Your task to perform on an android device: turn on bluetooth scan Image 0: 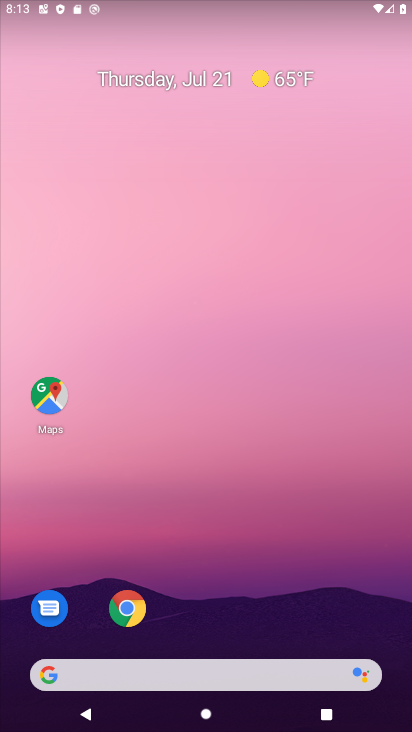
Step 0: drag from (165, 680) to (143, 229)
Your task to perform on an android device: turn on bluetooth scan Image 1: 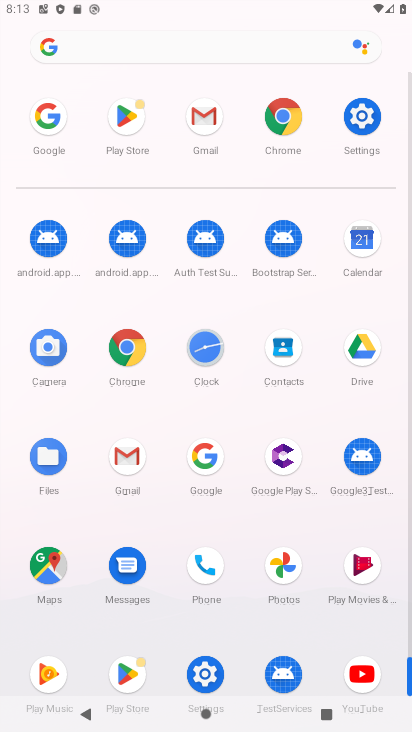
Step 1: click (365, 117)
Your task to perform on an android device: turn on bluetooth scan Image 2: 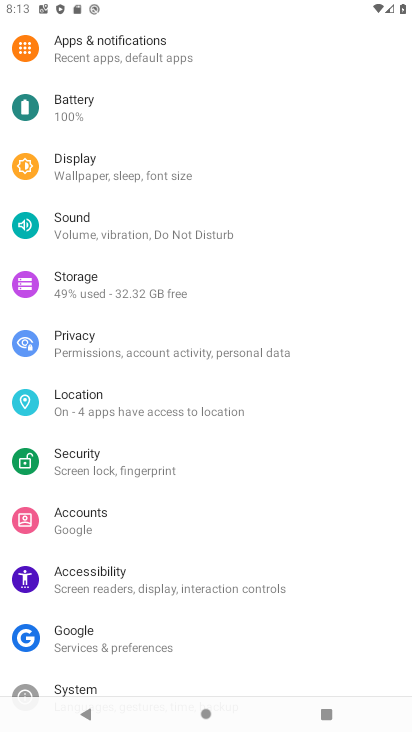
Step 2: click (137, 409)
Your task to perform on an android device: turn on bluetooth scan Image 3: 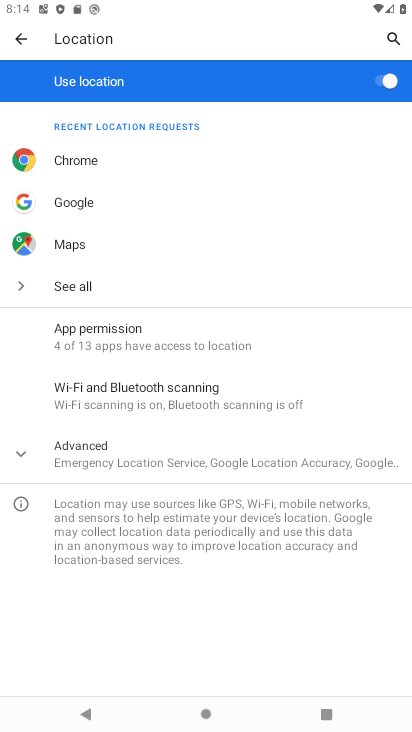
Step 3: click (148, 390)
Your task to perform on an android device: turn on bluetooth scan Image 4: 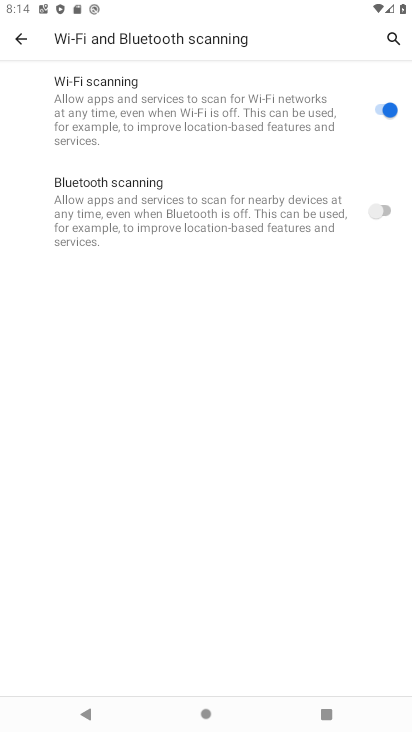
Step 4: click (379, 209)
Your task to perform on an android device: turn on bluetooth scan Image 5: 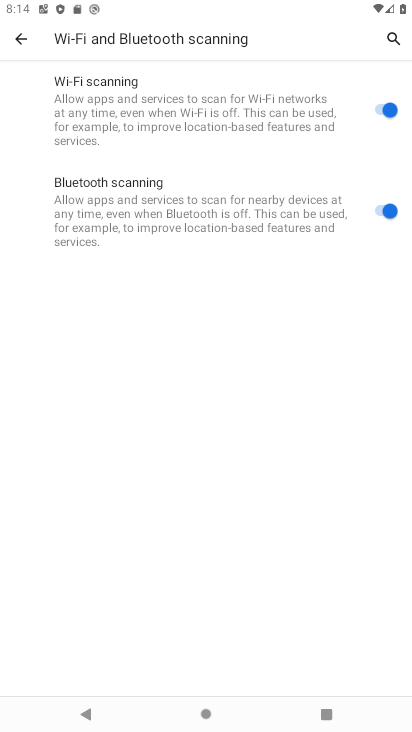
Step 5: task complete